Your task to perform on an android device: Do I have any events tomorrow? Image 0: 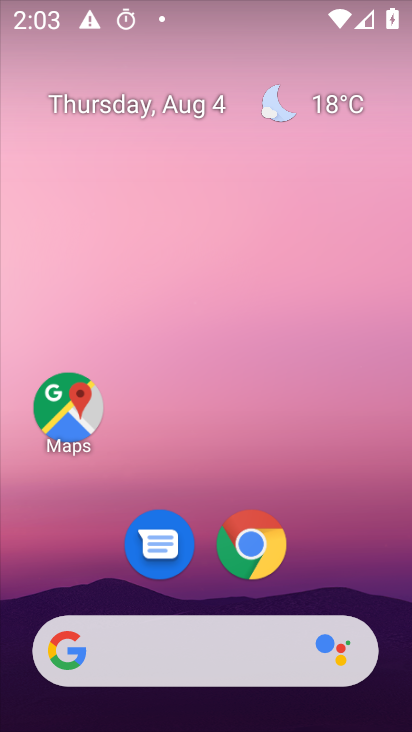
Step 0: drag from (377, 609) to (325, 116)
Your task to perform on an android device: Do I have any events tomorrow? Image 1: 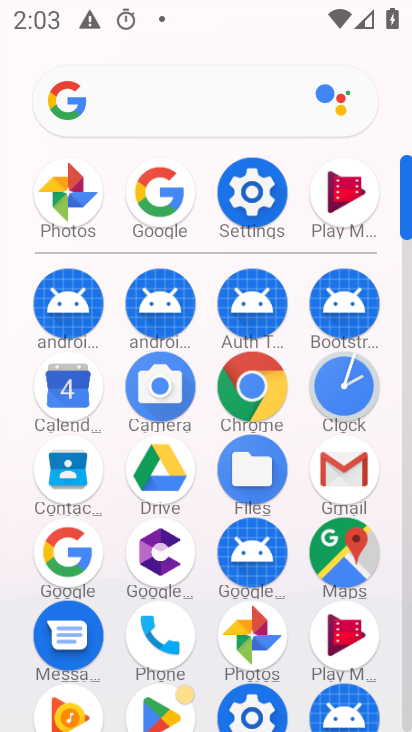
Step 1: click (66, 382)
Your task to perform on an android device: Do I have any events tomorrow? Image 2: 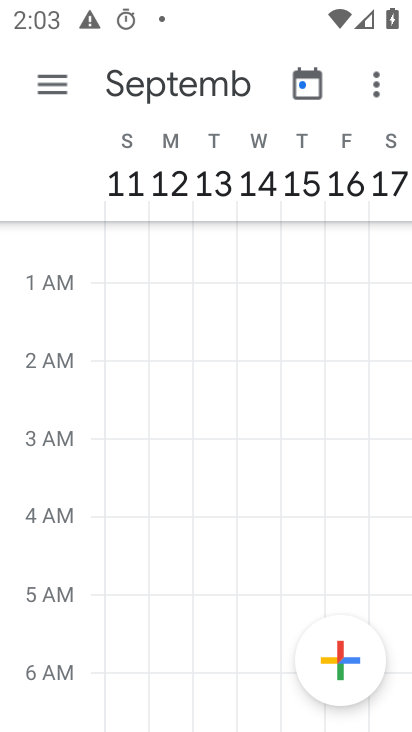
Step 2: click (209, 85)
Your task to perform on an android device: Do I have any events tomorrow? Image 3: 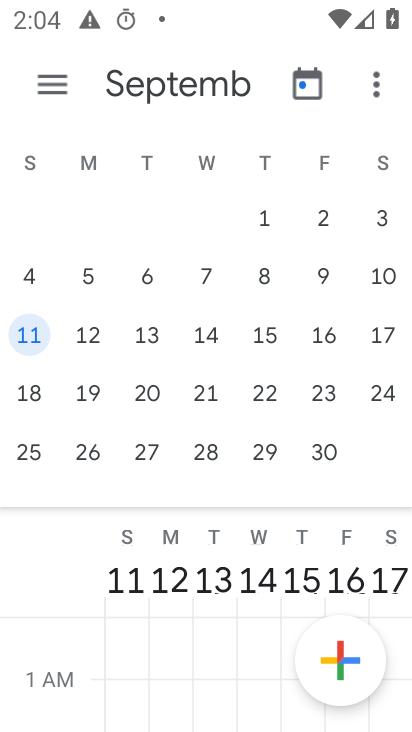
Step 3: drag from (47, 241) to (381, 252)
Your task to perform on an android device: Do I have any events tomorrow? Image 4: 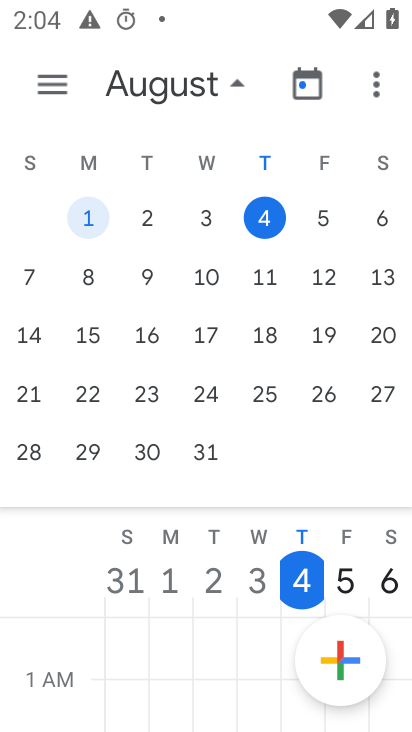
Step 4: click (260, 203)
Your task to perform on an android device: Do I have any events tomorrow? Image 5: 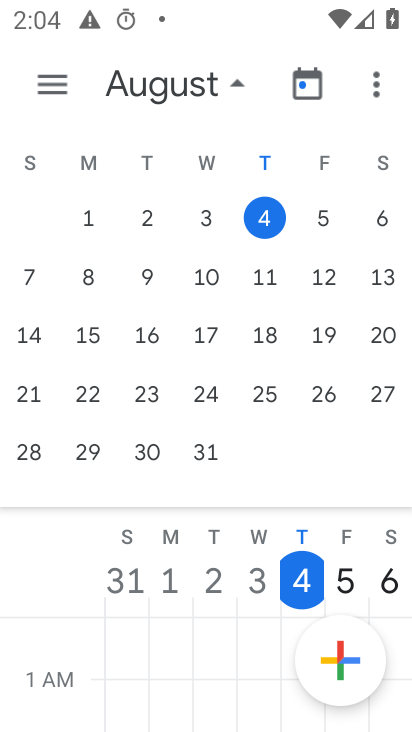
Step 5: click (316, 218)
Your task to perform on an android device: Do I have any events tomorrow? Image 6: 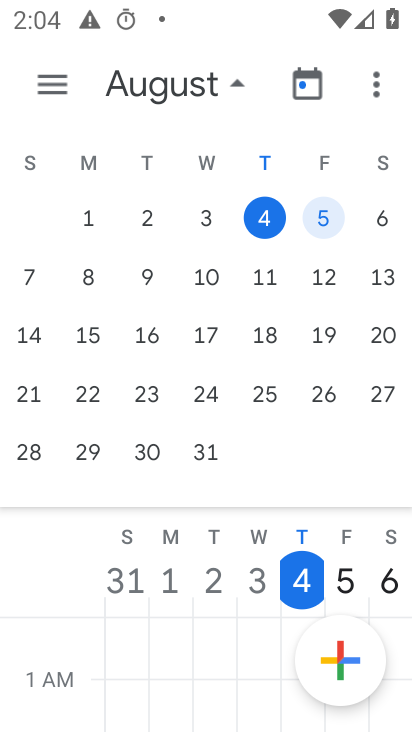
Step 6: click (50, 88)
Your task to perform on an android device: Do I have any events tomorrow? Image 7: 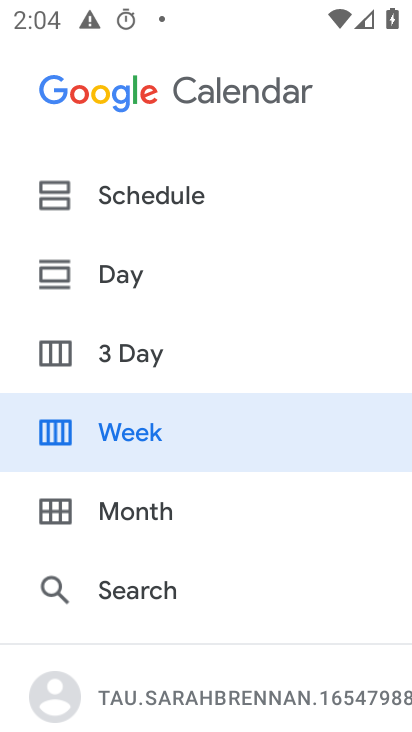
Step 7: click (106, 200)
Your task to perform on an android device: Do I have any events tomorrow? Image 8: 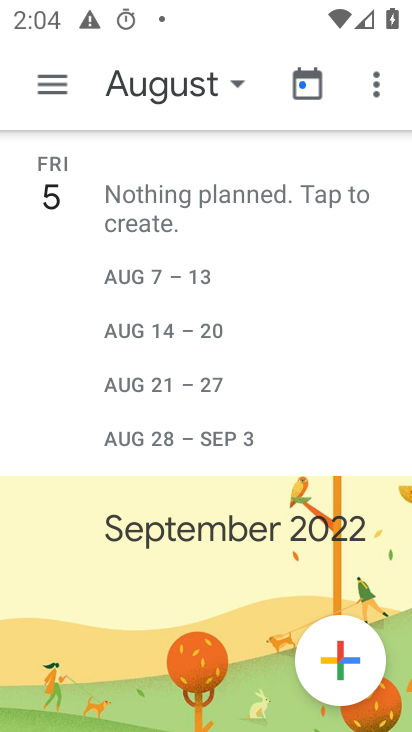
Step 8: task complete